Your task to perform on an android device: Open CNN.com Image 0: 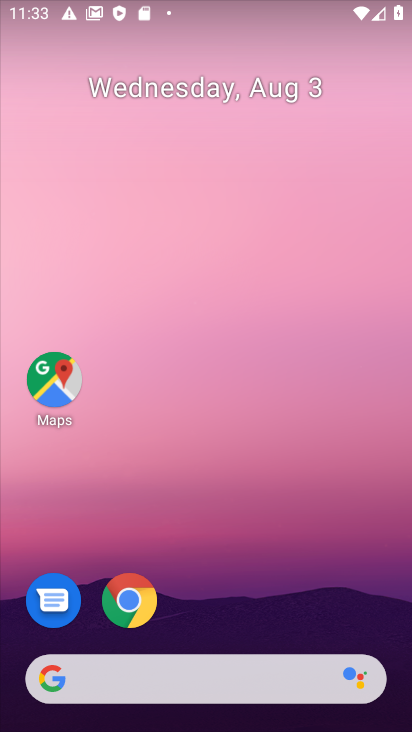
Step 0: click (126, 603)
Your task to perform on an android device: Open CNN.com Image 1: 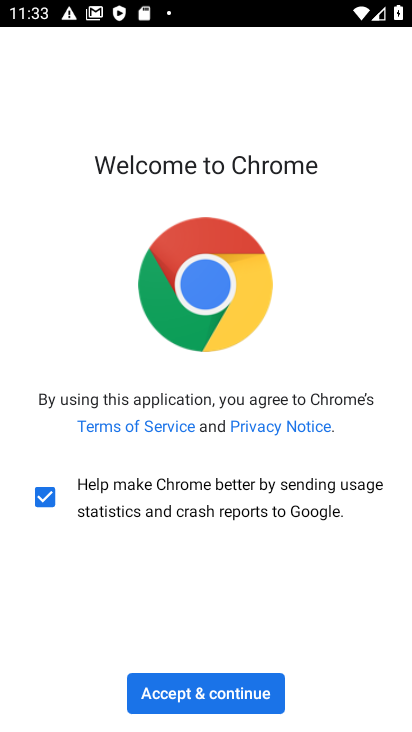
Step 1: click (214, 693)
Your task to perform on an android device: Open CNN.com Image 2: 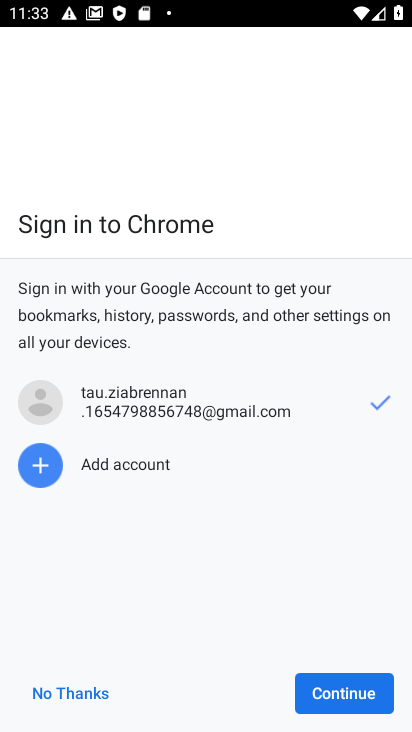
Step 2: click (354, 693)
Your task to perform on an android device: Open CNN.com Image 3: 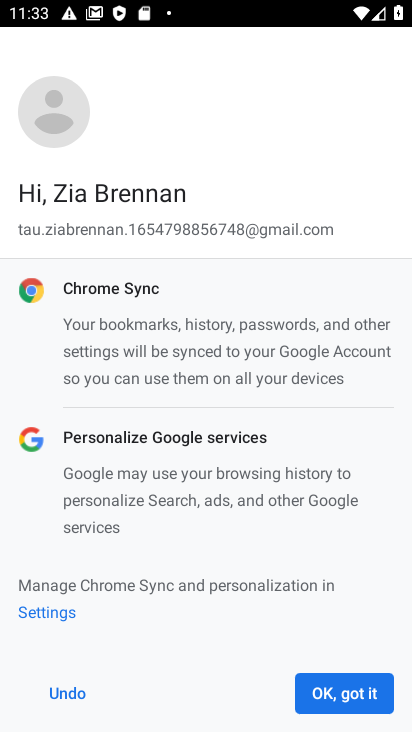
Step 3: click (354, 693)
Your task to perform on an android device: Open CNN.com Image 4: 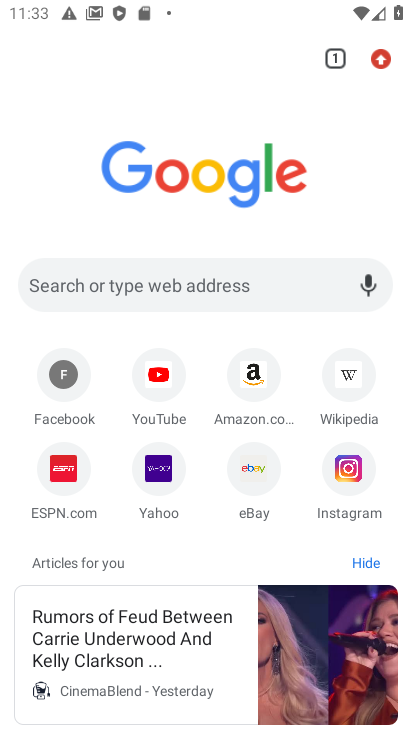
Step 4: click (167, 280)
Your task to perform on an android device: Open CNN.com Image 5: 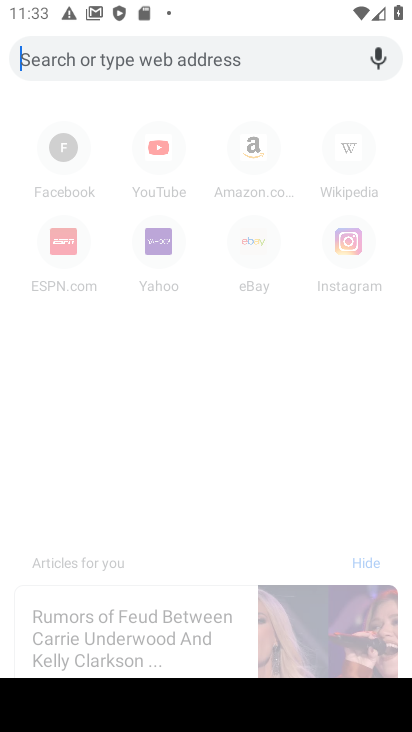
Step 5: type "cnn.com"
Your task to perform on an android device: Open CNN.com Image 6: 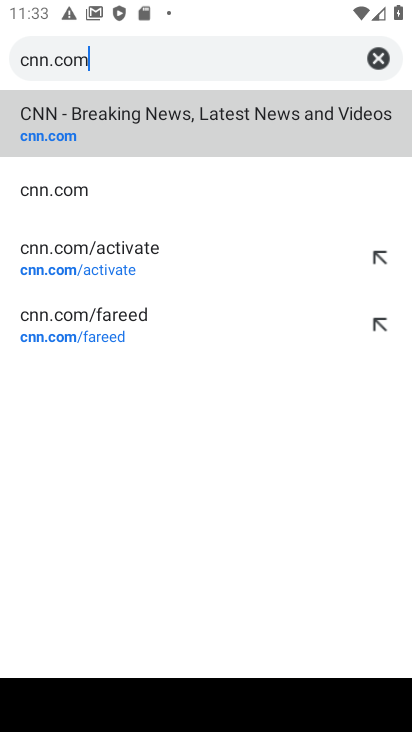
Step 6: click (109, 117)
Your task to perform on an android device: Open CNN.com Image 7: 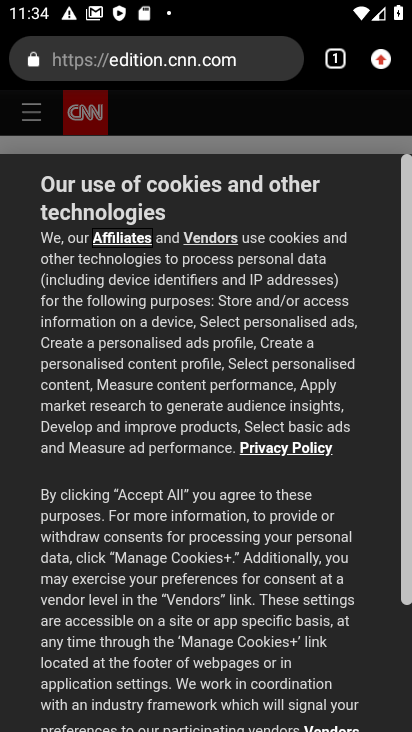
Step 7: drag from (218, 617) to (355, 157)
Your task to perform on an android device: Open CNN.com Image 8: 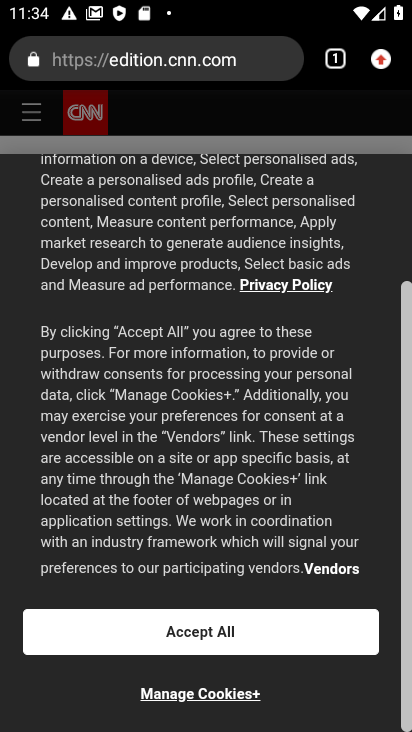
Step 8: click (207, 636)
Your task to perform on an android device: Open CNN.com Image 9: 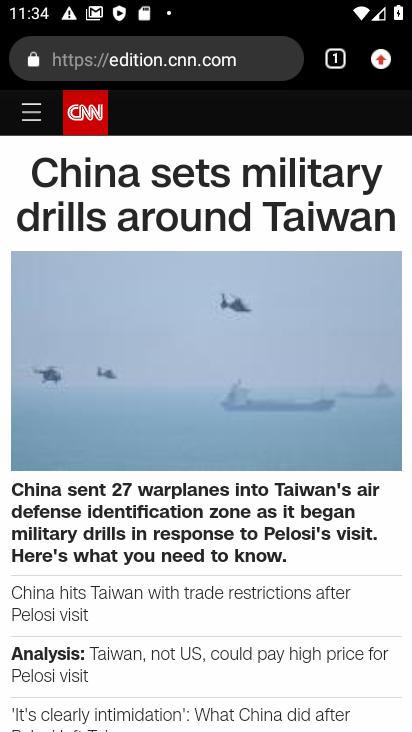
Step 9: task complete